Your task to perform on an android device: Show me popular videos on Youtube Image 0: 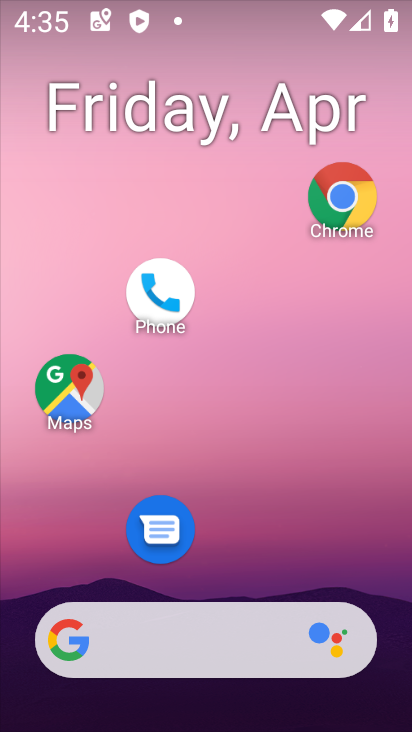
Step 0: drag from (230, 583) to (224, 65)
Your task to perform on an android device: Show me popular videos on Youtube Image 1: 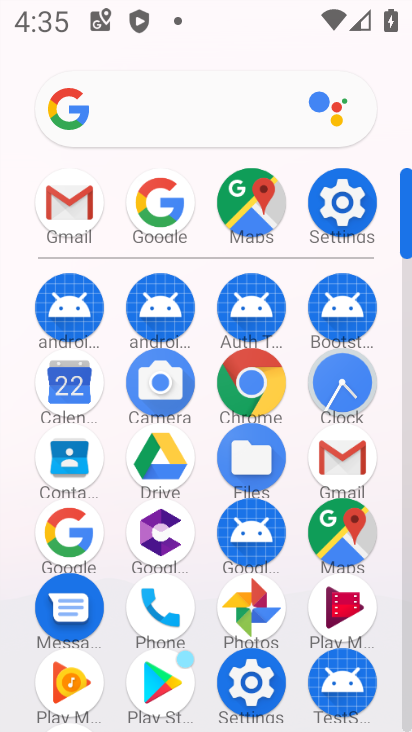
Step 1: drag from (204, 569) to (204, 156)
Your task to perform on an android device: Show me popular videos on Youtube Image 2: 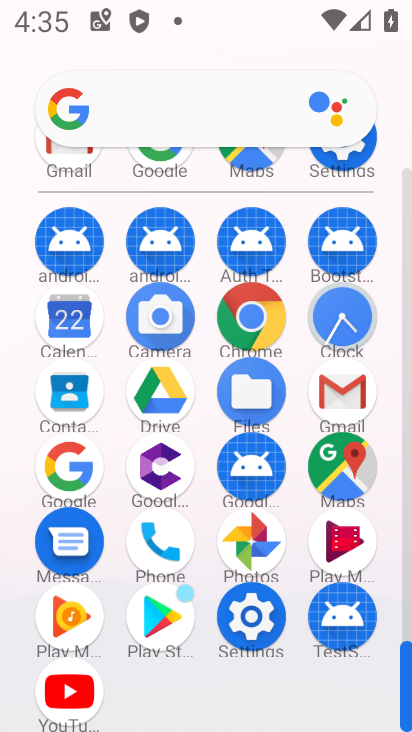
Step 2: click (64, 689)
Your task to perform on an android device: Show me popular videos on Youtube Image 3: 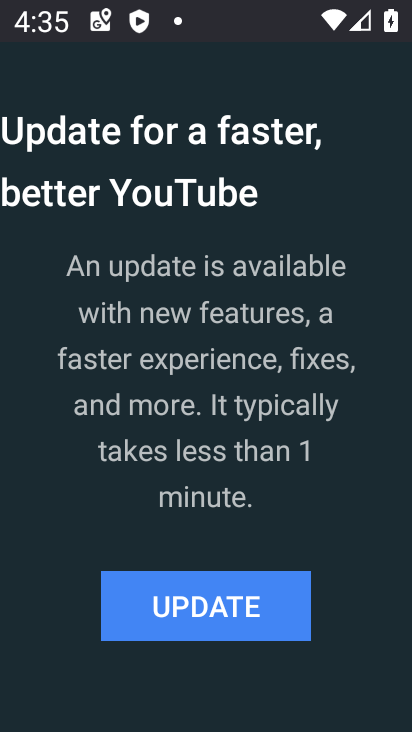
Step 3: press home button
Your task to perform on an android device: Show me popular videos on Youtube Image 4: 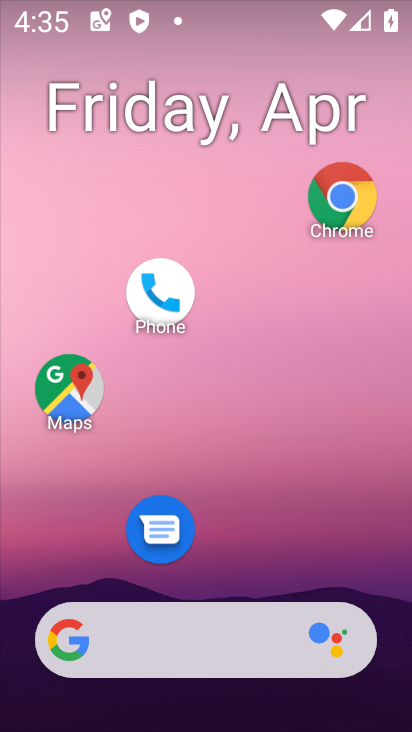
Step 4: drag from (243, 576) to (244, 18)
Your task to perform on an android device: Show me popular videos on Youtube Image 5: 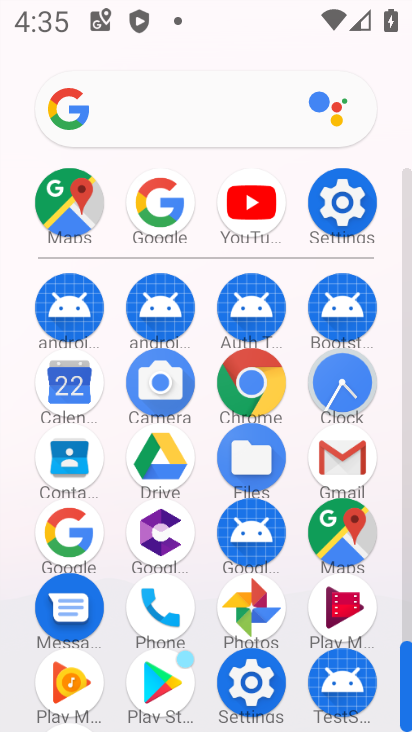
Step 5: click (245, 195)
Your task to perform on an android device: Show me popular videos on Youtube Image 6: 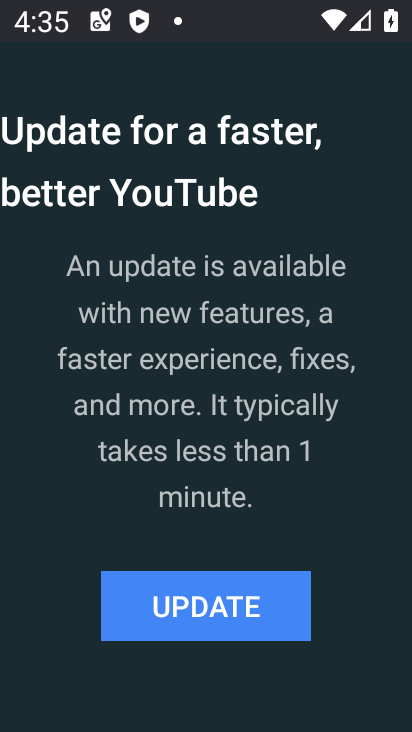
Step 6: click (209, 608)
Your task to perform on an android device: Show me popular videos on Youtube Image 7: 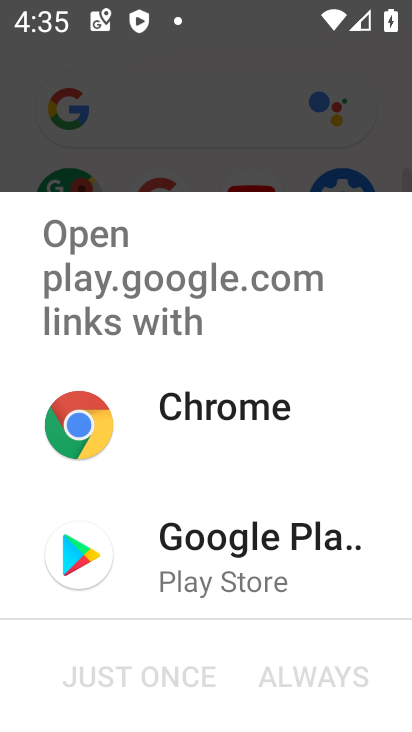
Step 7: click (157, 580)
Your task to perform on an android device: Show me popular videos on Youtube Image 8: 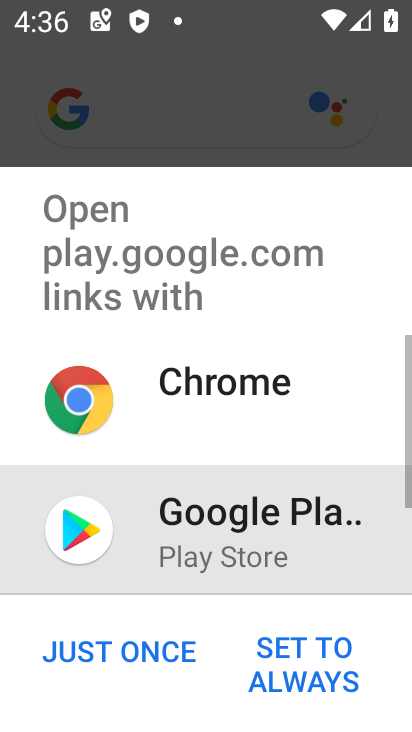
Step 8: click (113, 659)
Your task to perform on an android device: Show me popular videos on Youtube Image 9: 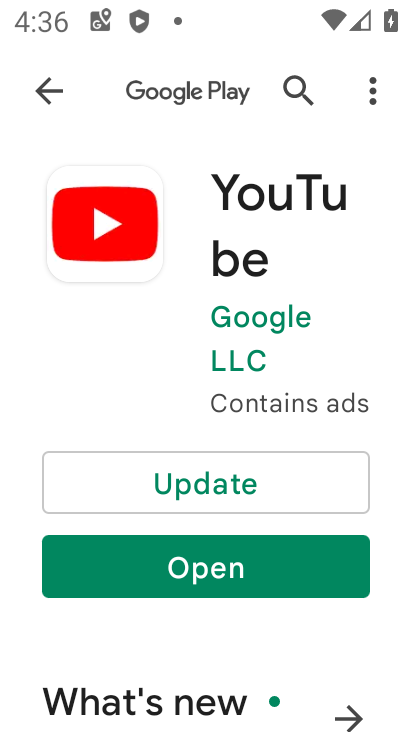
Step 9: click (199, 482)
Your task to perform on an android device: Show me popular videos on Youtube Image 10: 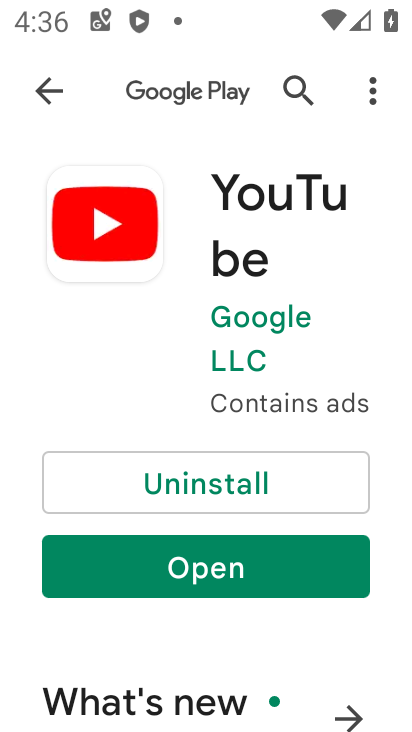
Step 10: click (215, 565)
Your task to perform on an android device: Show me popular videos on Youtube Image 11: 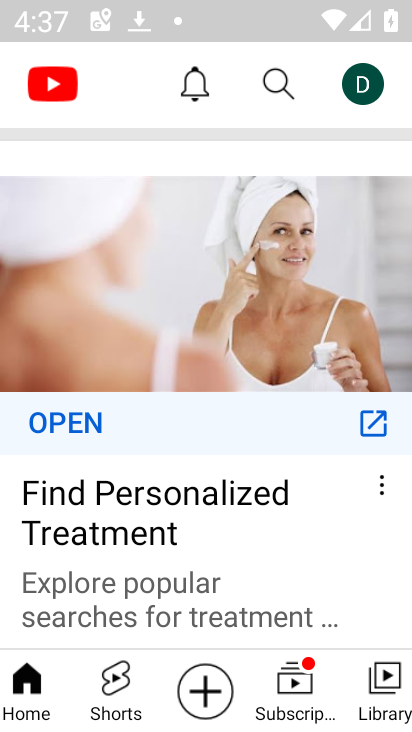
Step 11: drag from (176, 584) to (164, 140)
Your task to perform on an android device: Show me popular videos on Youtube Image 12: 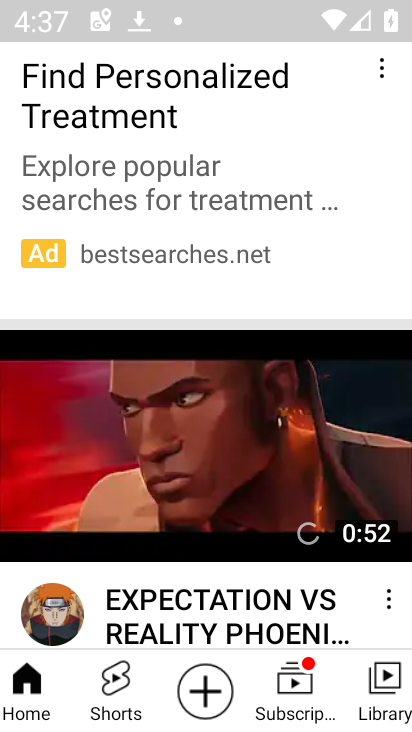
Step 12: drag from (195, 393) to (205, 252)
Your task to perform on an android device: Show me popular videos on Youtube Image 13: 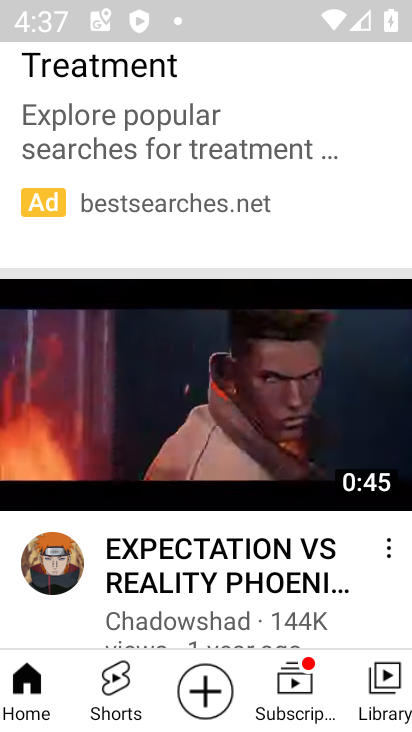
Step 13: drag from (197, 186) to (187, 696)
Your task to perform on an android device: Show me popular videos on Youtube Image 14: 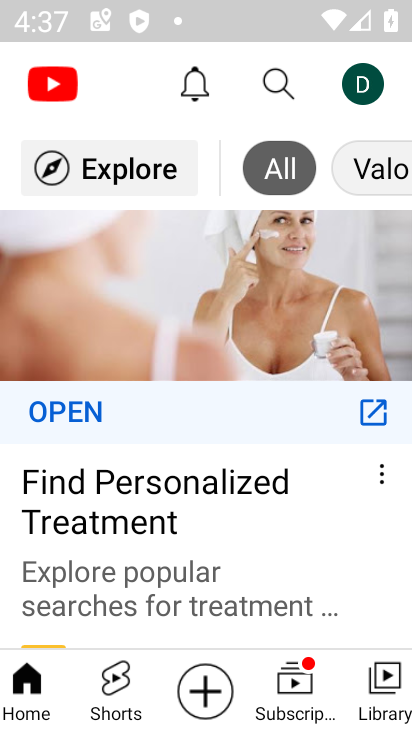
Step 14: click (110, 176)
Your task to perform on an android device: Show me popular videos on Youtube Image 15: 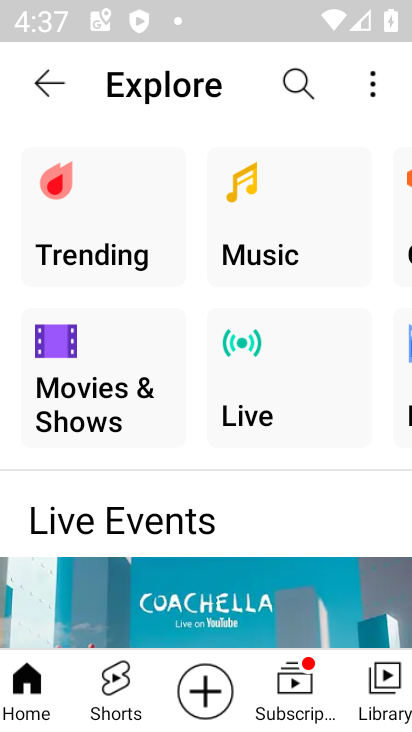
Step 15: click (89, 221)
Your task to perform on an android device: Show me popular videos on Youtube Image 16: 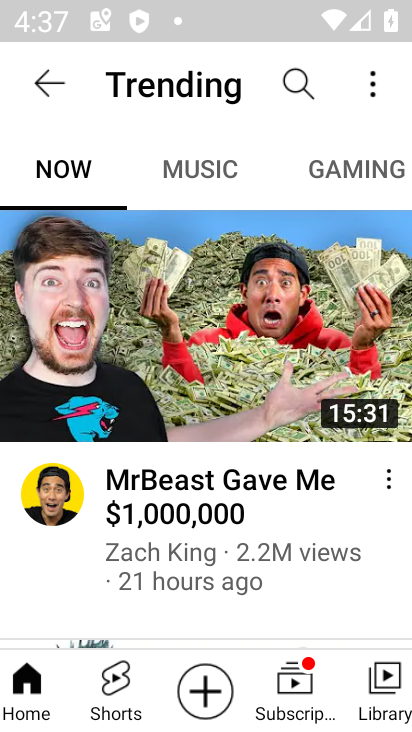
Step 16: task complete